Your task to perform on an android device: toggle location history Image 0: 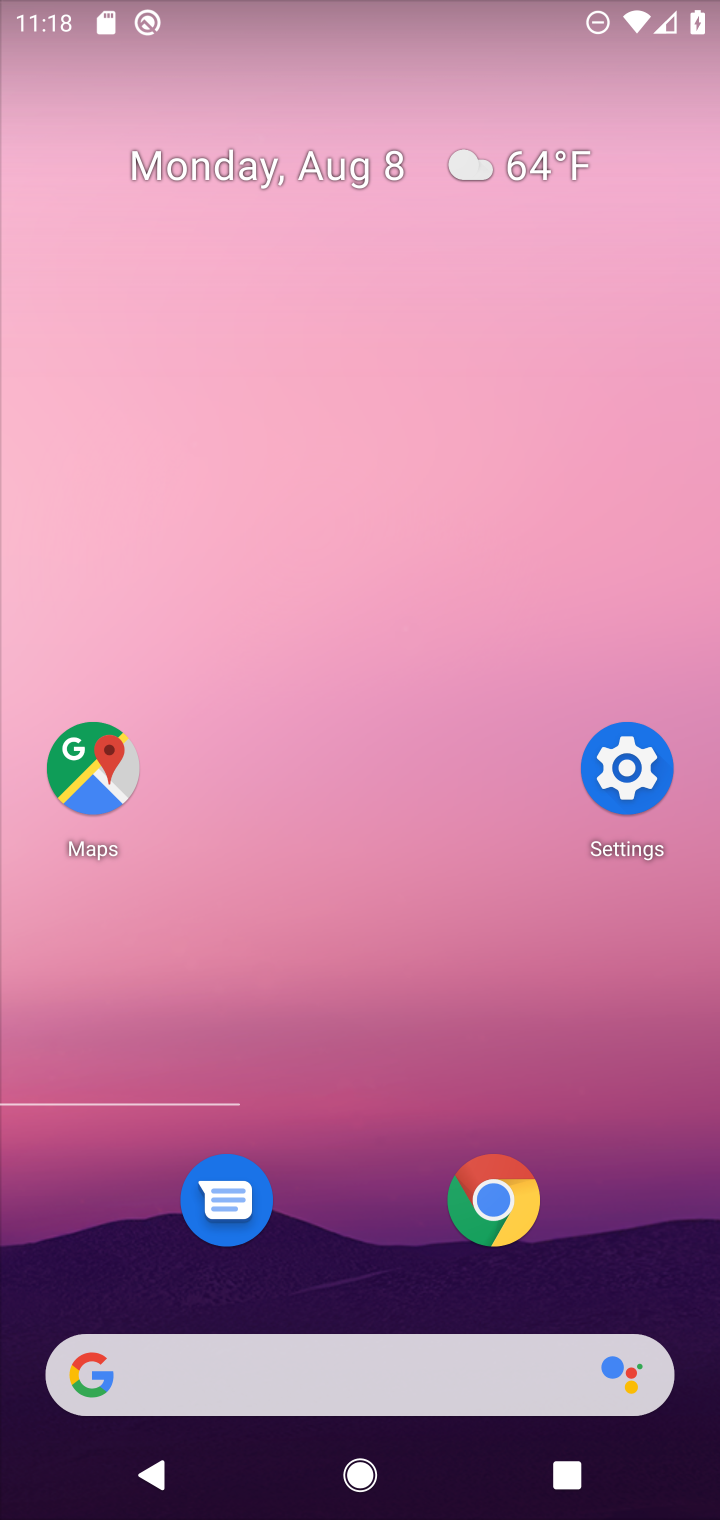
Step 0: press home button
Your task to perform on an android device: toggle location history Image 1: 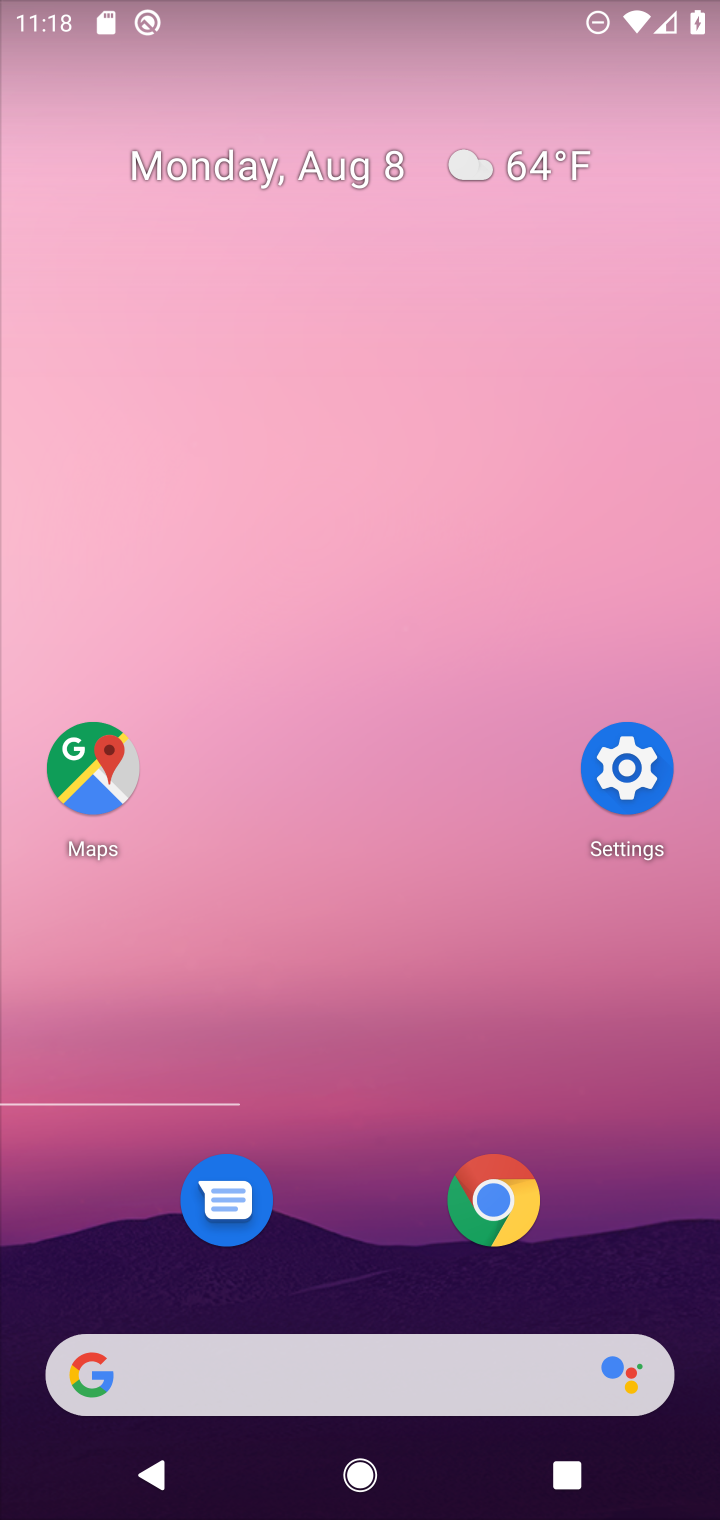
Step 1: click (86, 780)
Your task to perform on an android device: toggle location history Image 2: 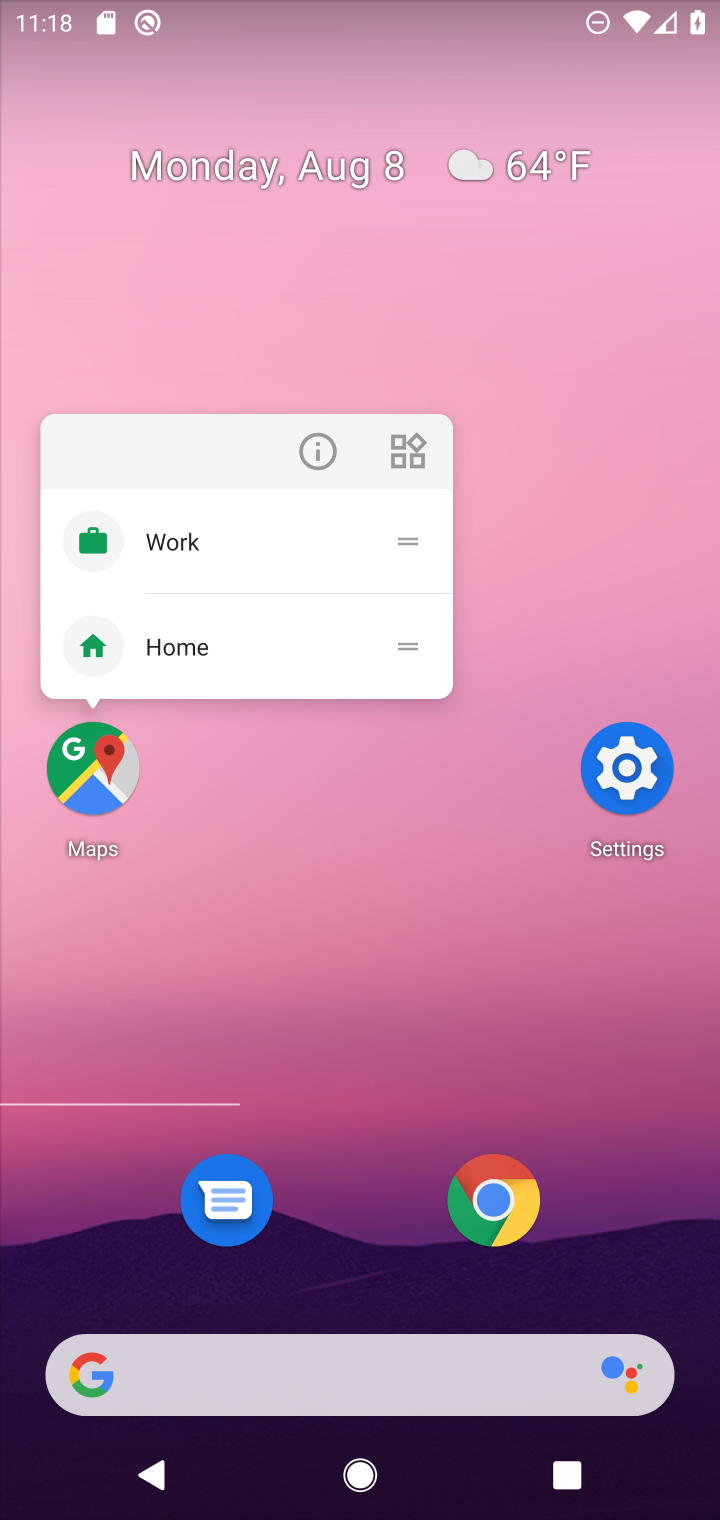
Step 2: click (86, 780)
Your task to perform on an android device: toggle location history Image 3: 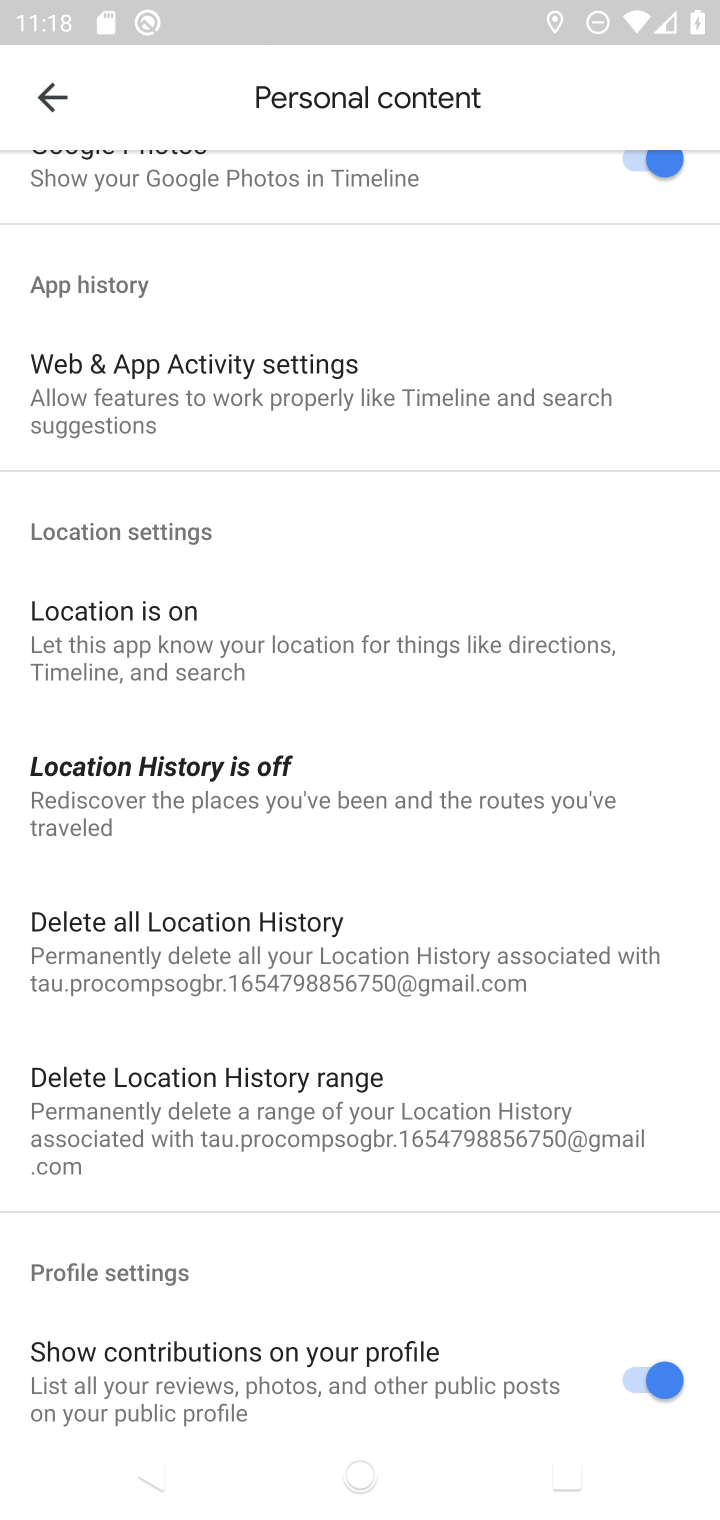
Step 3: click (220, 784)
Your task to perform on an android device: toggle location history Image 4: 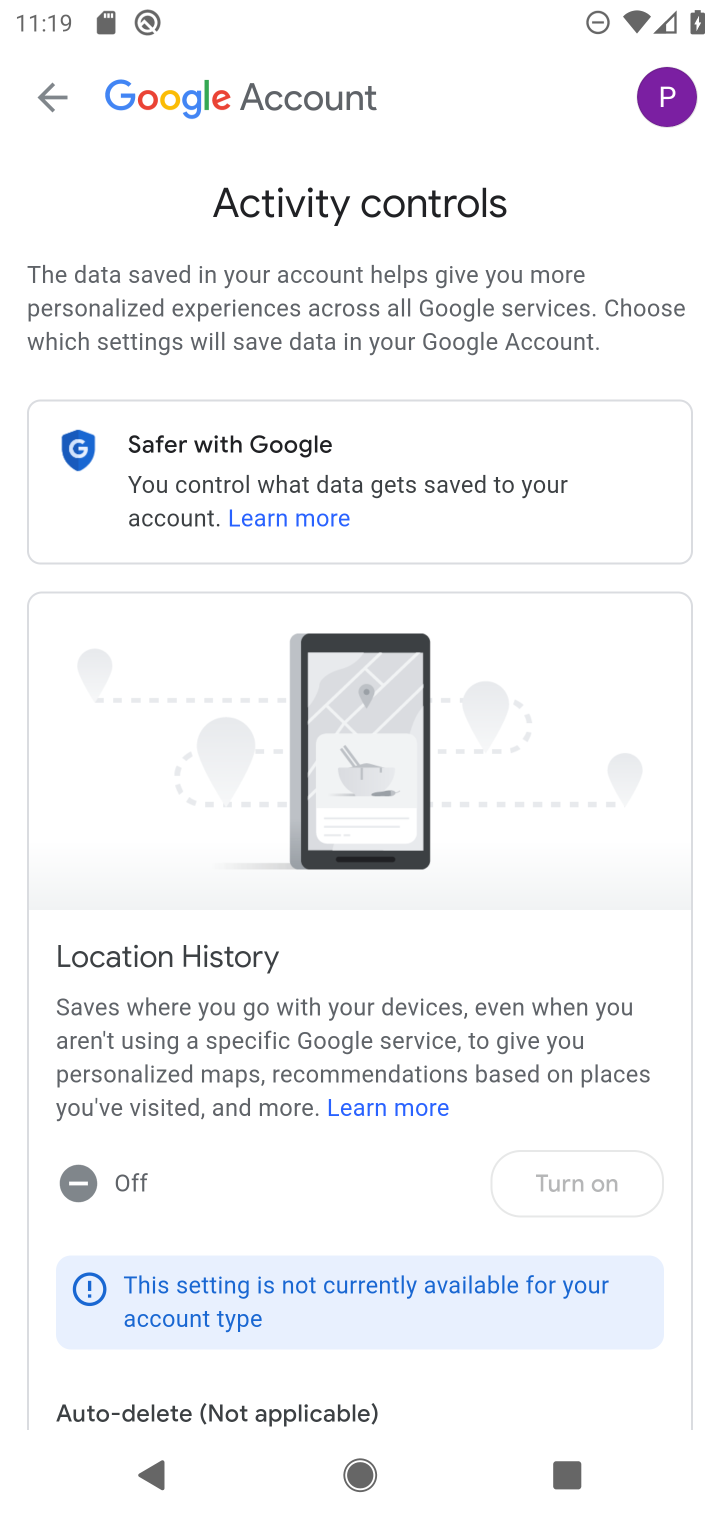
Step 4: task complete